Your task to perform on an android device: Show the shopping cart on target. Add "logitech g910" to the cart on target Image 0: 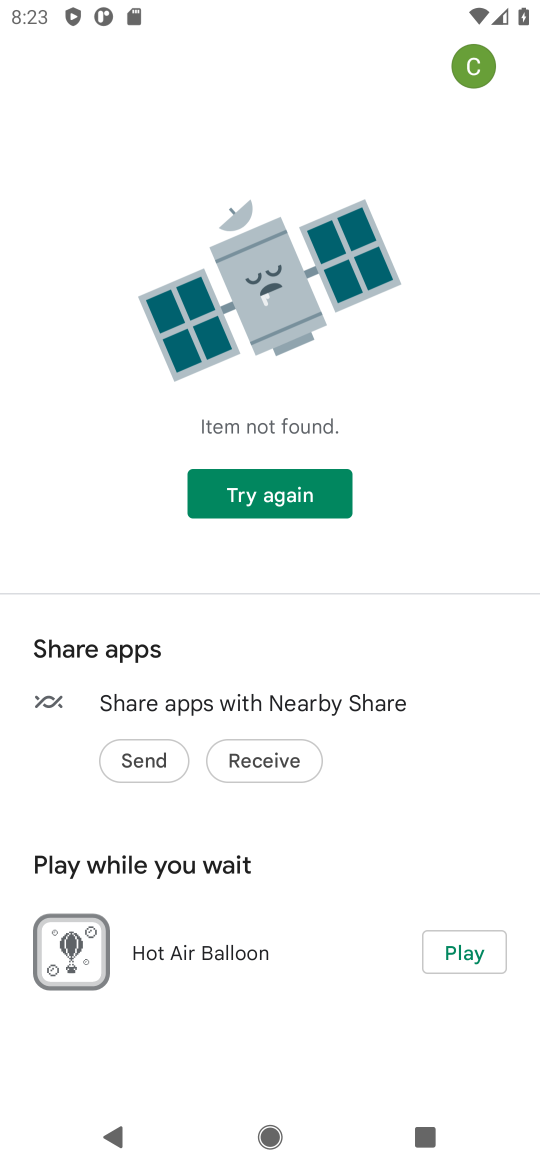
Step 0: press home button
Your task to perform on an android device: Show the shopping cart on target. Add "logitech g910" to the cart on target Image 1: 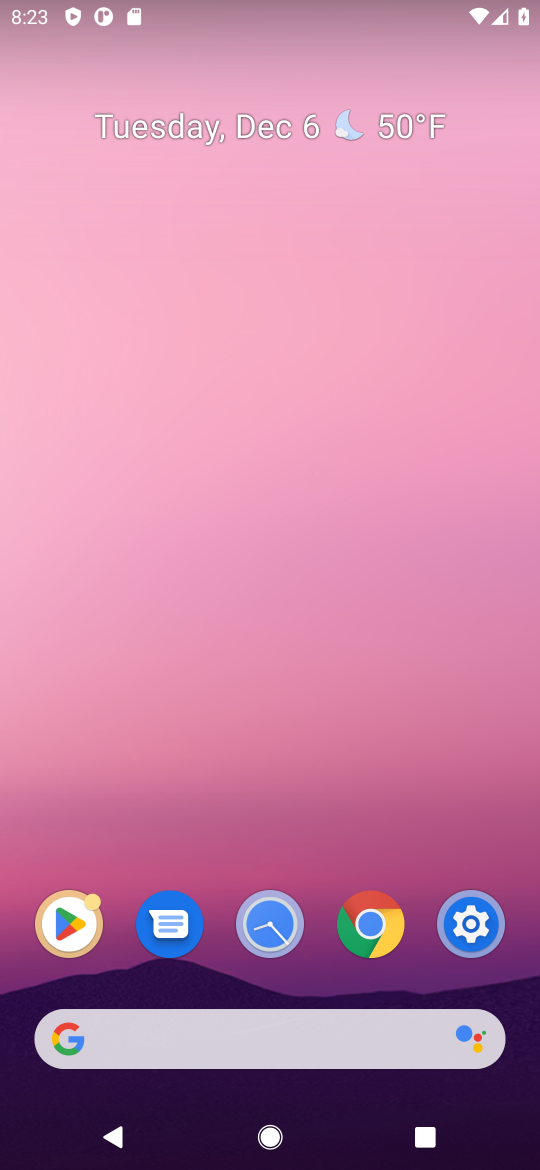
Step 1: click (309, 1061)
Your task to perform on an android device: Show the shopping cart on target. Add "logitech g910" to the cart on target Image 2: 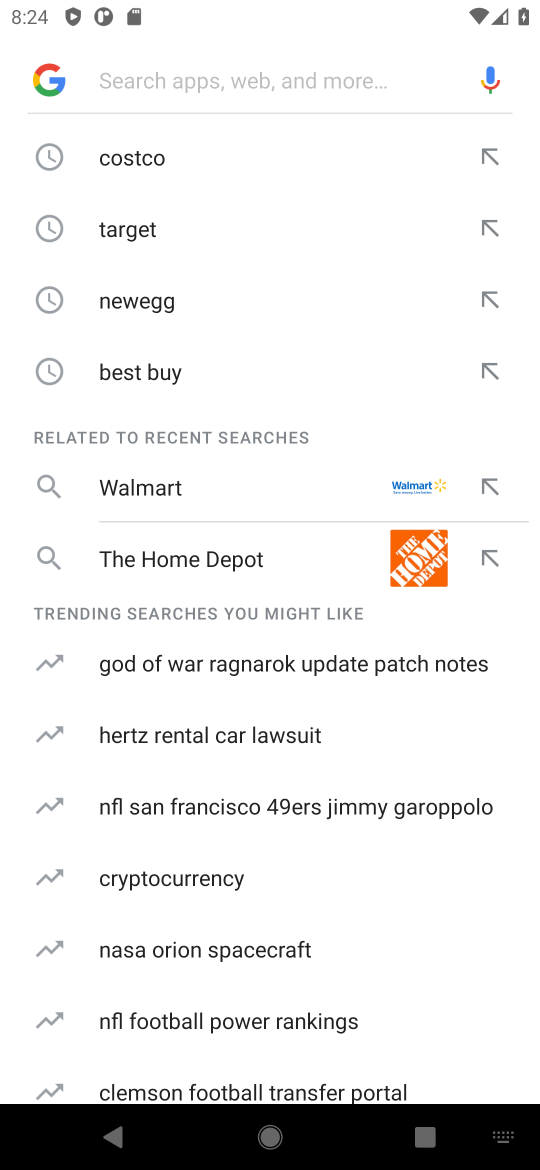
Step 2: type "target"
Your task to perform on an android device: Show the shopping cart on target. Add "logitech g910" to the cart on target Image 3: 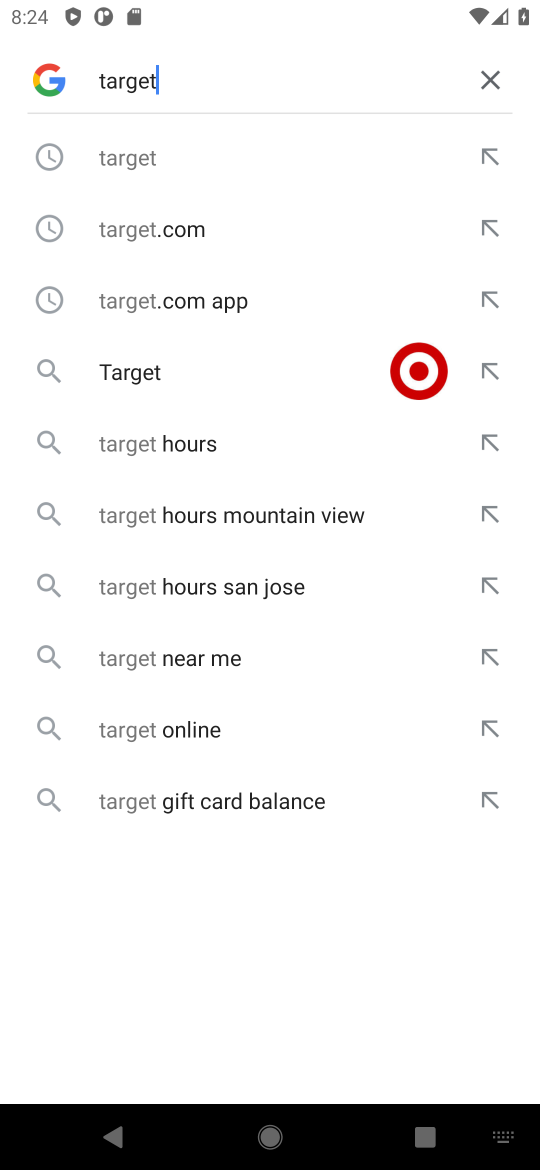
Step 3: click (160, 369)
Your task to perform on an android device: Show the shopping cart on target. Add "logitech g910" to the cart on target Image 4: 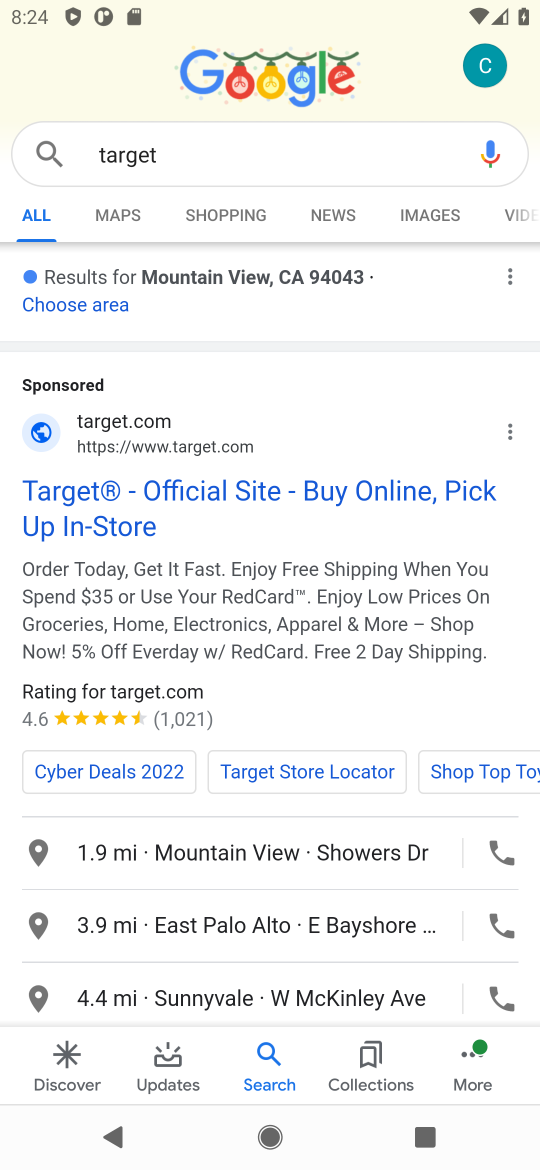
Step 4: click (94, 543)
Your task to perform on an android device: Show the shopping cart on target. Add "logitech g910" to the cart on target Image 5: 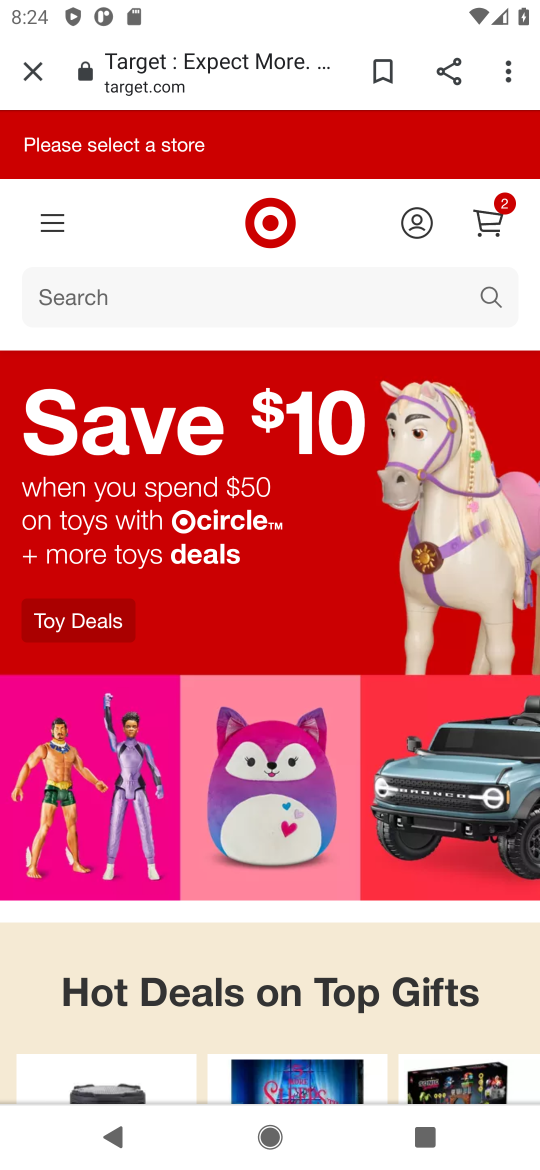
Step 5: click (166, 288)
Your task to perform on an android device: Show the shopping cart on target. Add "logitech g910" to the cart on target Image 6: 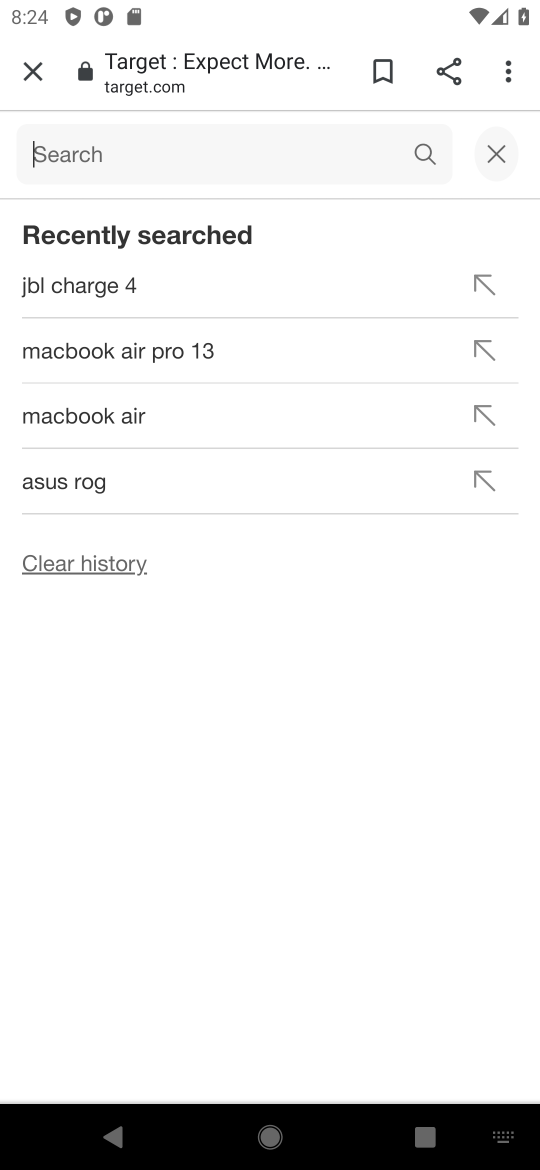
Step 6: type "logitech g910"
Your task to perform on an android device: Show the shopping cart on target. Add "logitech g910" to the cart on target Image 7: 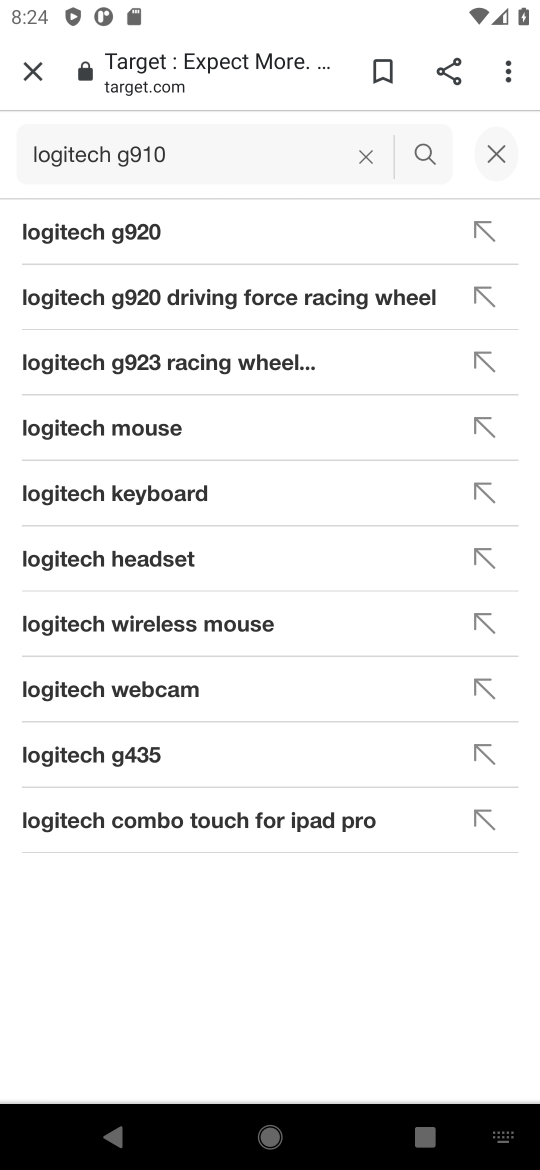
Step 7: click (427, 172)
Your task to perform on an android device: Show the shopping cart on target. Add "logitech g910" to the cart on target Image 8: 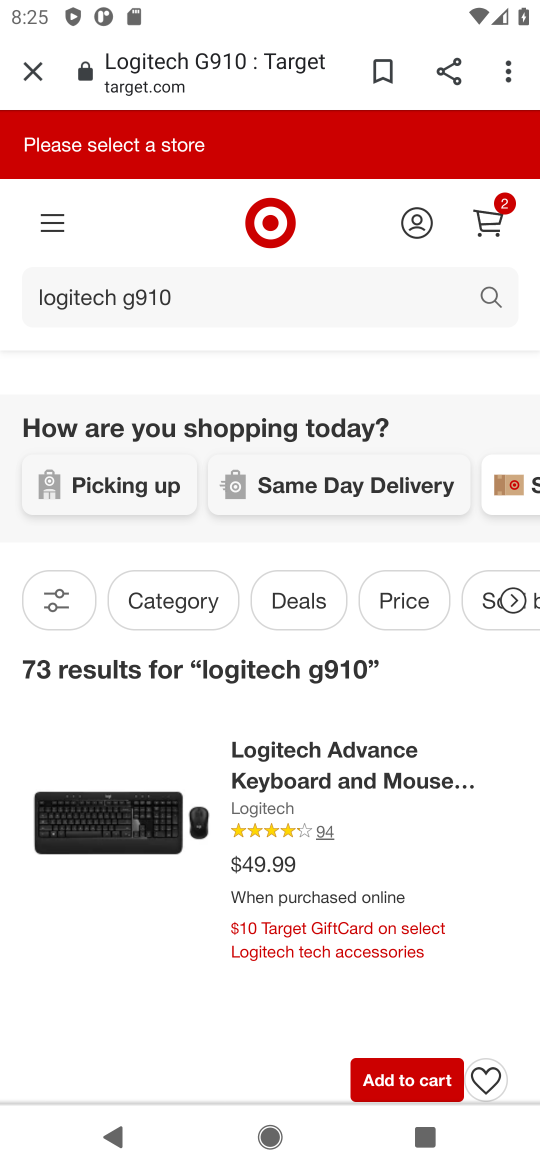
Step 8: click (398, 1069)
Your task to perform on an android device: Show the shopping cart on target. Add "logitech g910" to the cart on target Image 9: 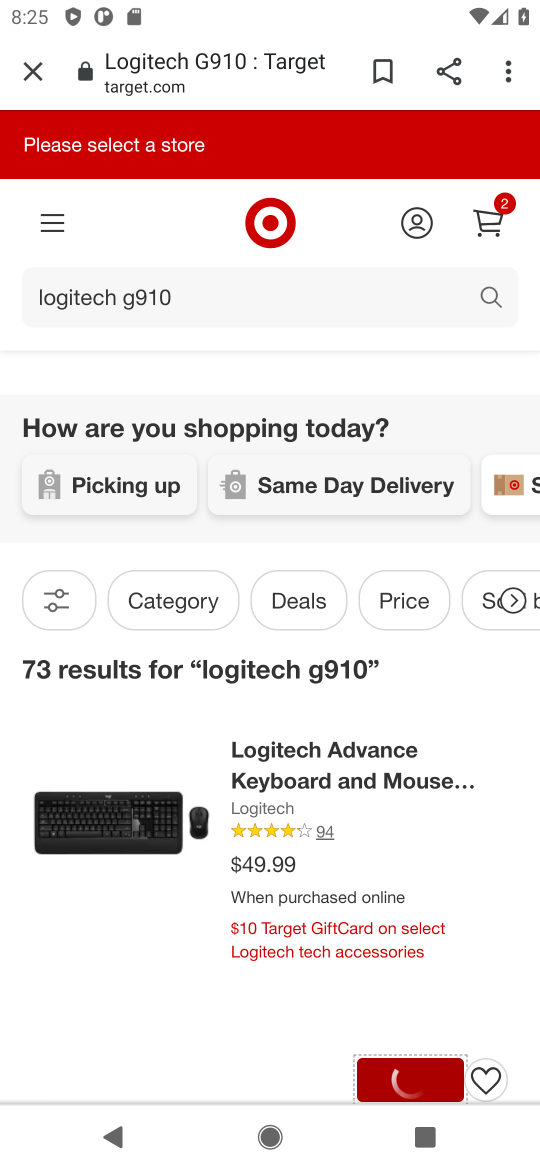
Step 9: task complete